Your task to perform on an android device: clear all cookies in the chrome app Image 0: 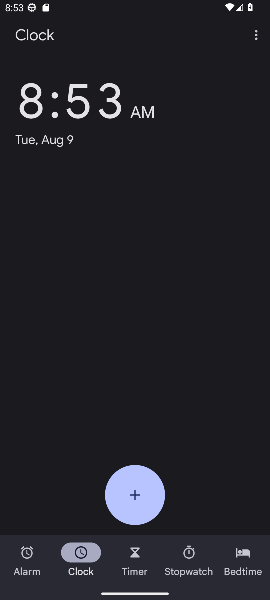
Step 0: press home button
Your task to perform on an android device: clear all cookies in the chrome app Image 1: 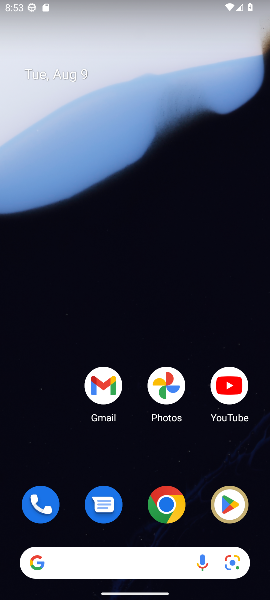
Step 1: click (164, 508)
Your task to perform on an android device: clear all cookies in the chrome app Image 2: 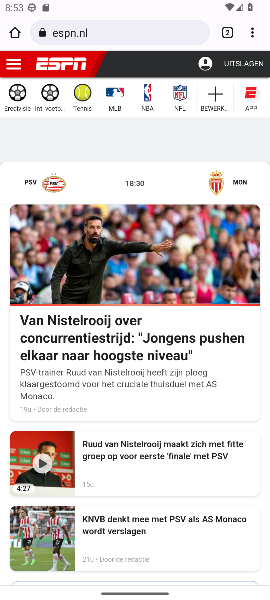
Step 2: click (251, 31)
Your task to perform on an android device: clear all cookies in the chrome app Image 3: 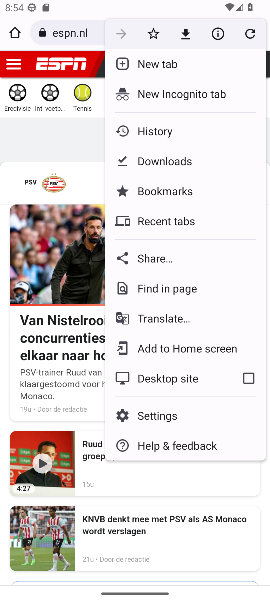
Step 3: click (156, 131)
Your task to perform on an android device: clear all cookies in the chrome app Image 4: 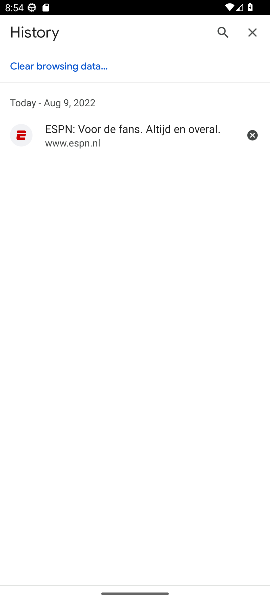
Step 4: click (58, 65)
Your task to perform on an android device: clear all cookies in the chrome app Image 5: 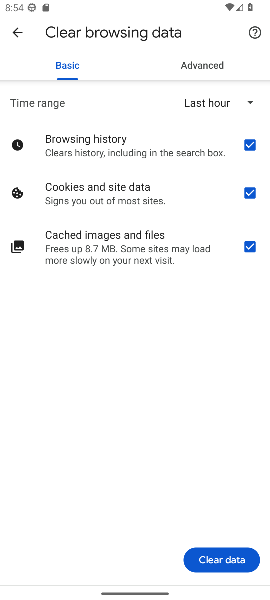
Step 5: click (251, 149)
Your task to perform on an android device: clear all cookies in the chrome app Image 6: 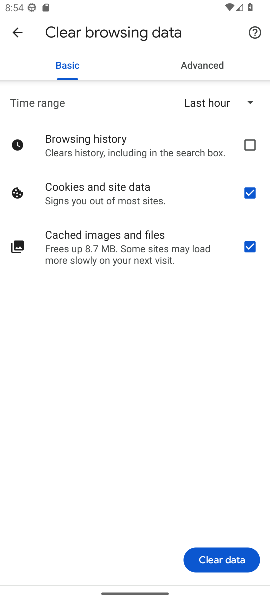
Step 6: click (251, 101)
Your task to perform on an android device: clear all cookies in the chrome app Image 7: 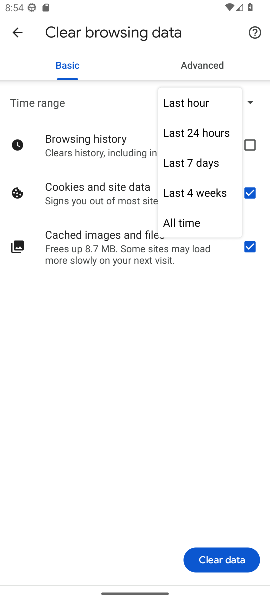
Step 7: click (196, 217)
Your task to perform on an android device: clear all cookies in the chrome app Image 8: 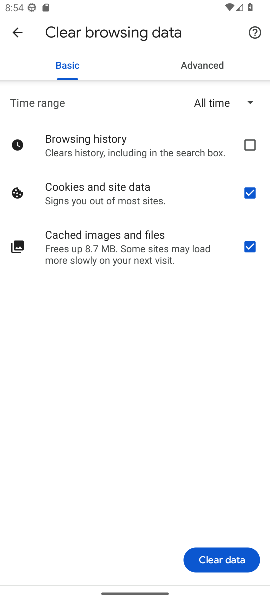
Step 8: click (248, 244)
Your task to perform on an android device: clear all cookies in the chrome app Image 9: 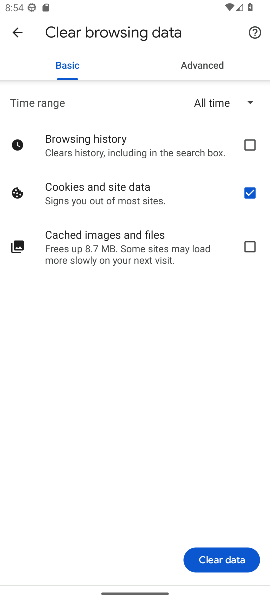
Step 9: click (212, 558)
Your task to perform on an android device: clear all cookies in the chrome app Image 10: 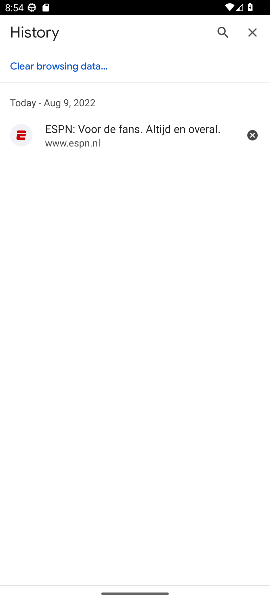
Step 10: task complete